Your task to perform on an android device: Open eBay Image 0: 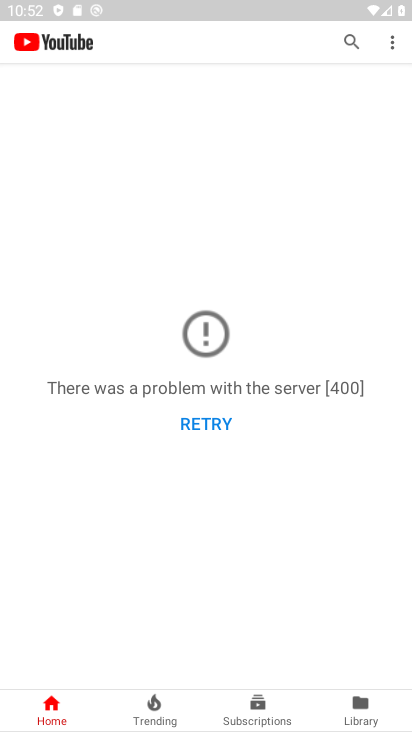
Step 0: press home button
Your task to perform on an android device: Open eBay Image 1: 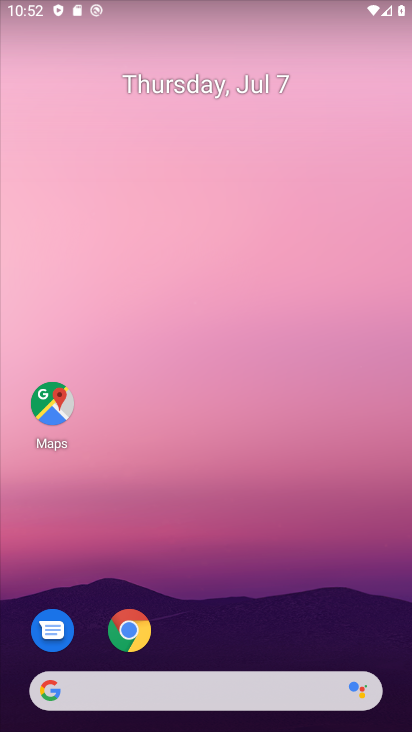
Step 1: drag from (273, 565) to (242, 50)
Your task to perform on an android device: Open eBay Image 2: 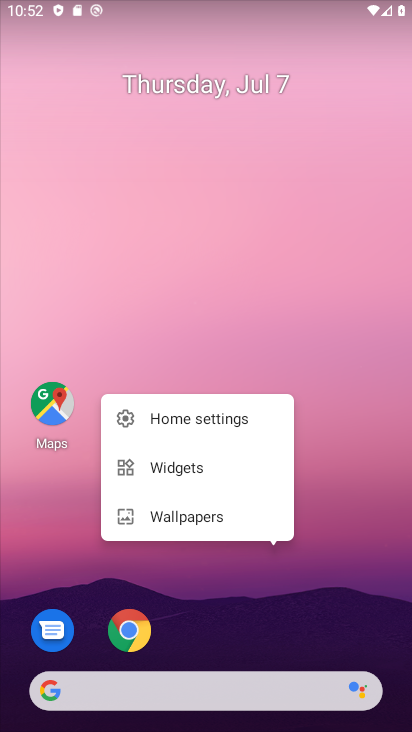
Step 2: click (308, 201)
Your task to perform on an android device: Open eBay Image 3: 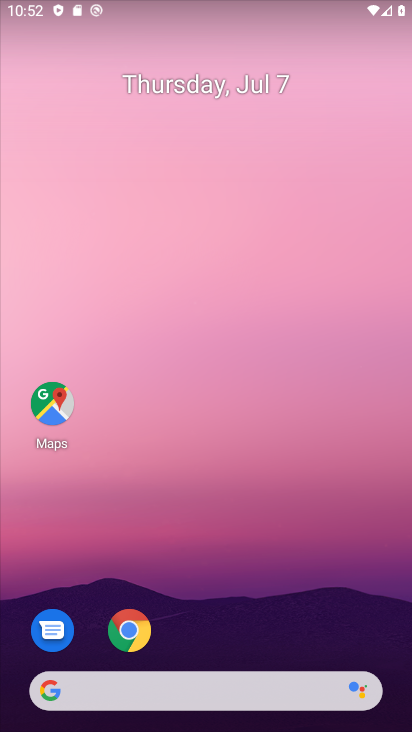
Step 3: click (139, 649)
Your task to perform on an android device: Open eBay Image 4: 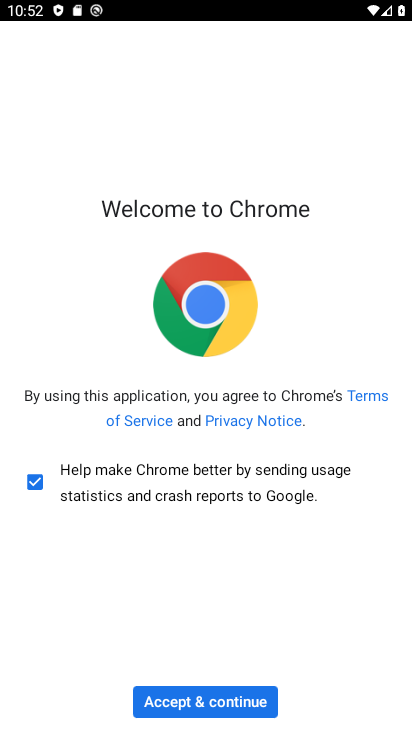
Step 4: click (240, 693)
Your task to perform on an android device: Open eBay Image 5: 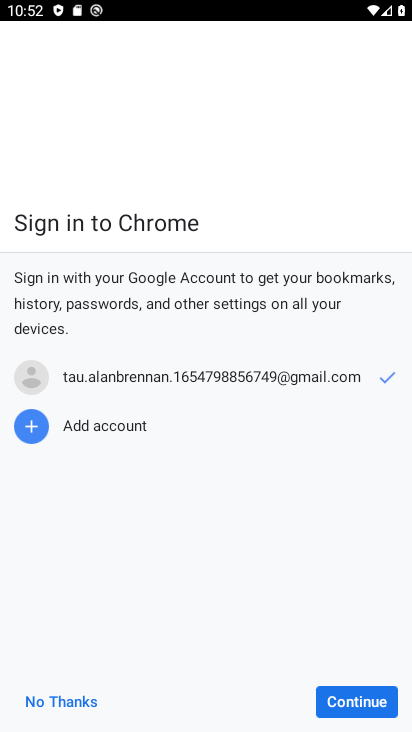
Step 5: click (361, 706)
Your task to perform on an android device: Open eBay Image 6: 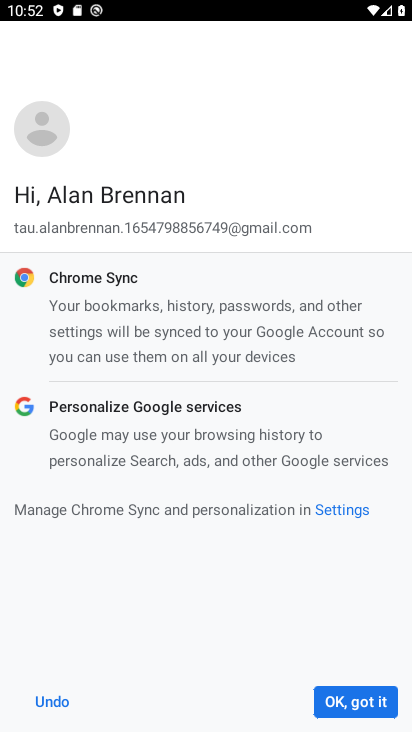
Step 6: click (361, 706)
Your task to perform on an android device: Open eBay Image 7: 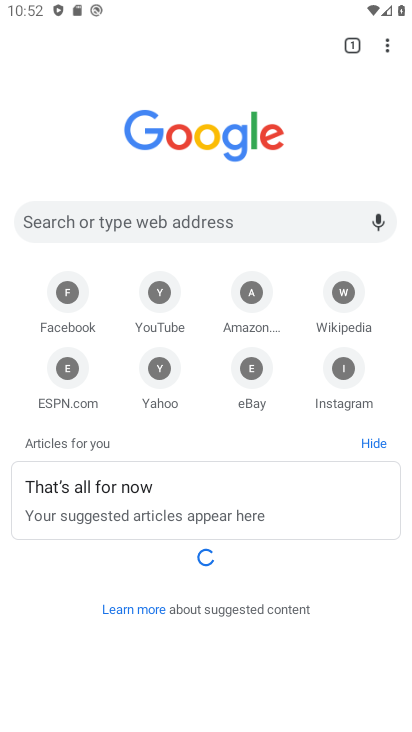
Step 7: click (257, 396)
Your task to perform on an android device: Open eBay Image 8: 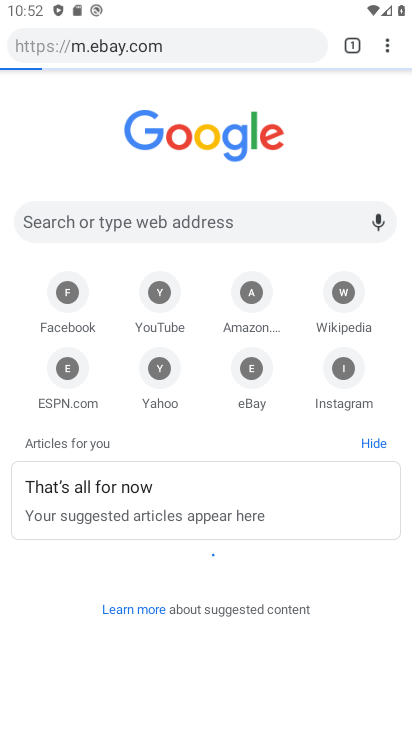
Step 8: task complete